Your task to perform on an android device: What's the weather like in Singapore? Image 0: 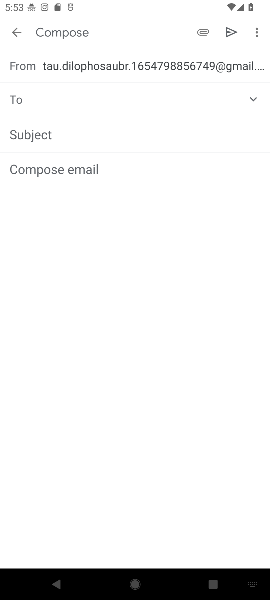
Step 0: press home button
Your task to perform on an android device: What's the weather like in Singapore? Image 1: 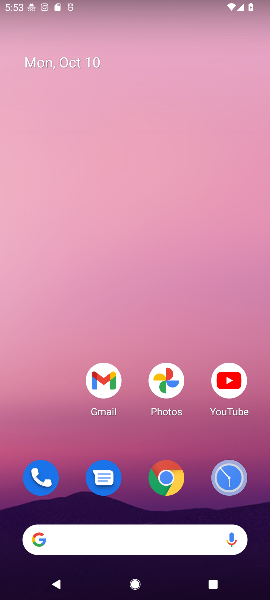
Step 1: click (150, 554)
Your task to perform on an android device: What's the weather like in Singapore? Image 2: 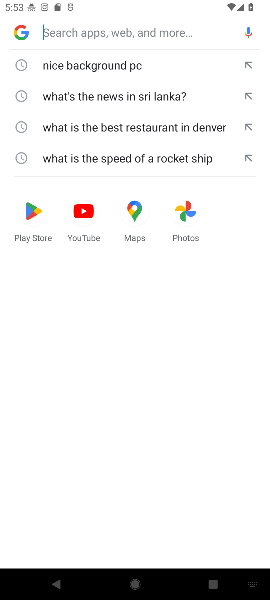
Step 2: type "What's the weather like in Singapore?"
Your task to perform on an android device: What's the weather like in Singapore? Image 3: 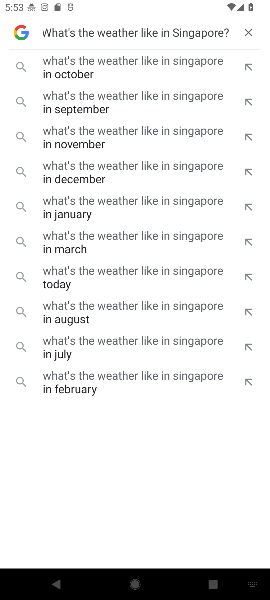
Step 3: click (21, 37)
Your task to perform on an android device: What's the weather like in Singapore? Image 4: 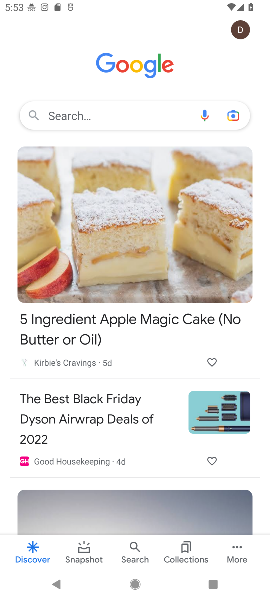
Step 4: click (75, 123)
Your task to perform on an android device: What's the weather like in Singapore? Image 5: 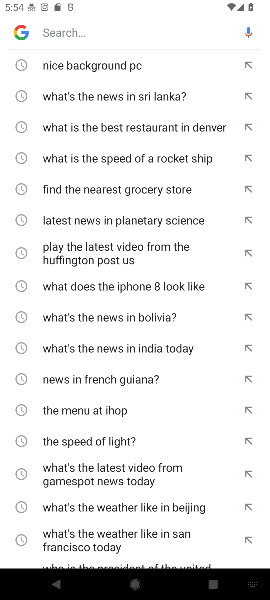
Step 5: type "What's the weather like in Singapore?"
Your task to perform on an android device: What's the weather like in Singapore? Image 6: 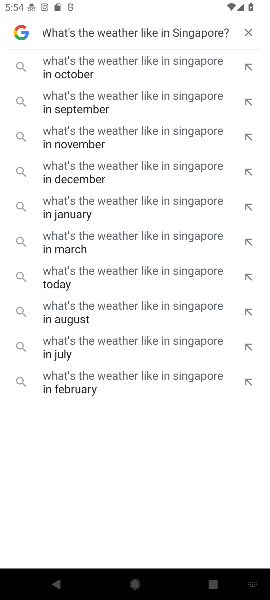
Step 6: click (109, 60)
Your task to perform on an android device: What's the weather like in Singapore? Image 7: 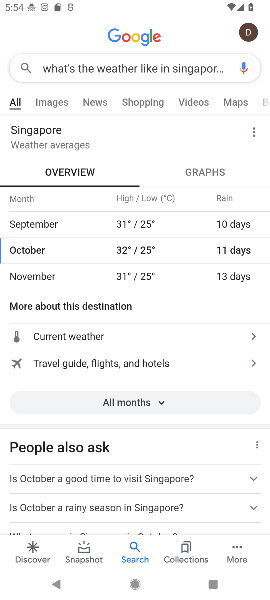
Step 7: task complete